Your task to perform on an android device: turn on wifi Image 0: 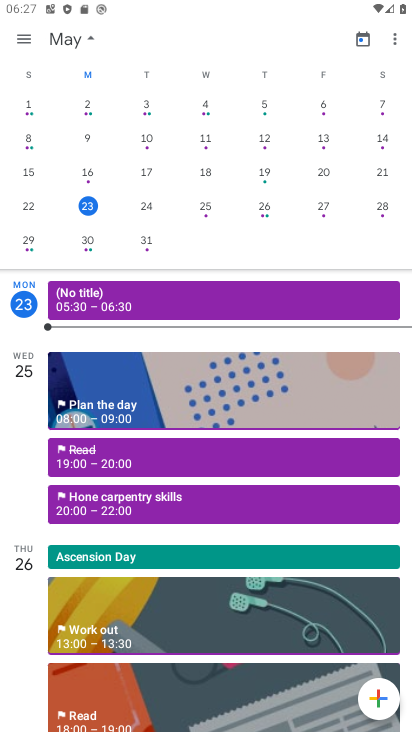
Step 0: press home button
Your task to perform on an android device: turn on wifi Image 1: 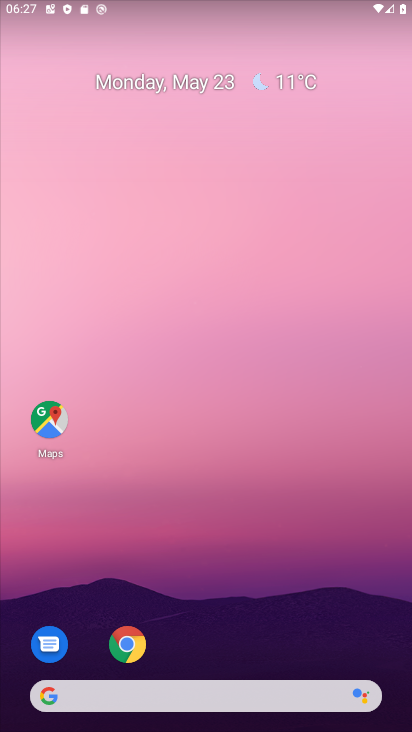
Step 1: drag from (192, 647) to (169, 205)
Your task to perform on an android device: turn on wifi Image 2: 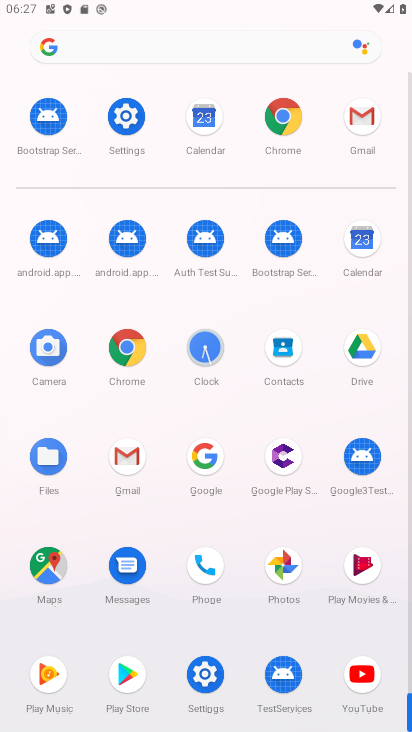
Step 2: click (125, 114)
Your task to perform on an android device: turn on wifi Image 3: 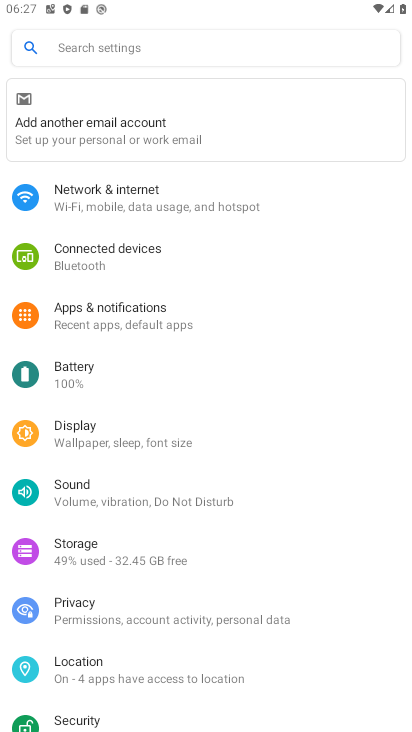
Step 3: click (131, 213)
Your task to perform on an android device: turn on wifi Image 4: 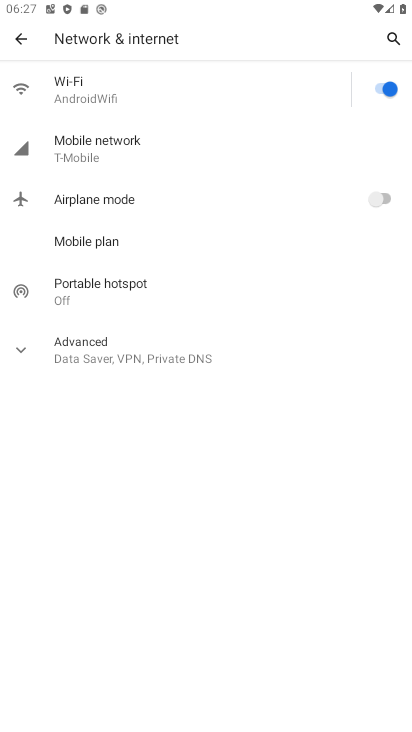
Step 4: task complete